Your task to perform on an android device: Open Google Chrome and click the shortcut for Amazon.com Image 0: 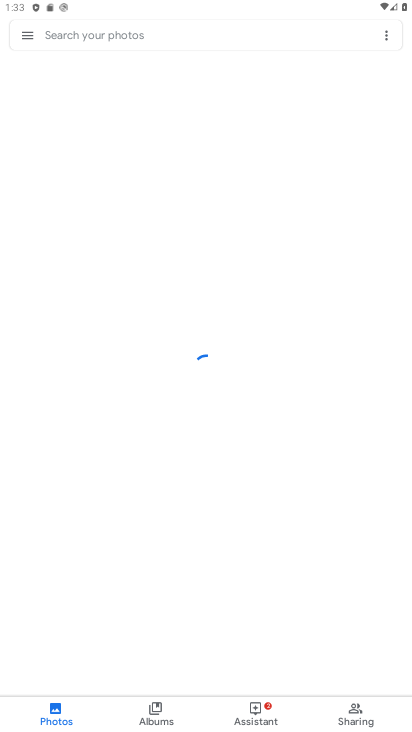
Step 0: press home button
Your task to perform on an android device: Open Google Chrome and click the shortcut for Amazon.com Image 1: 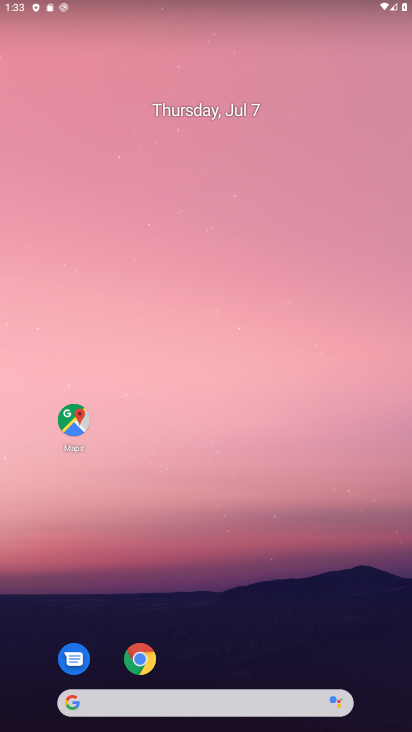
Step 1: click (142, 660)
Your task to perform on an android device: Open Google Chrome and click the shortcut for Amazon.com Image 2: 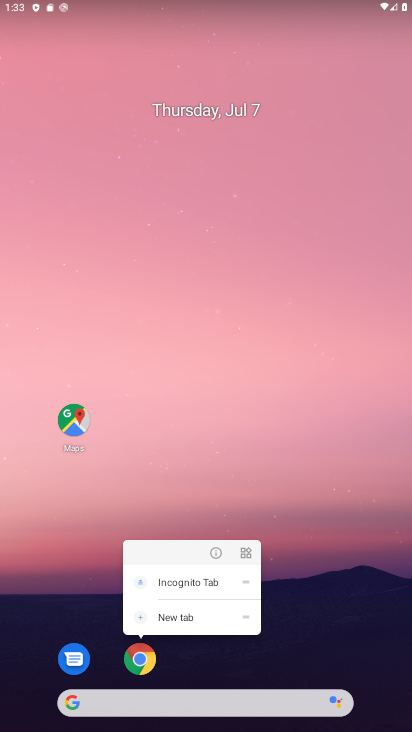
Step 2: click (146, 658)
Your task to perform on an android device: Open Google Chrome and click the shortcut for Amazon.com Image 3: 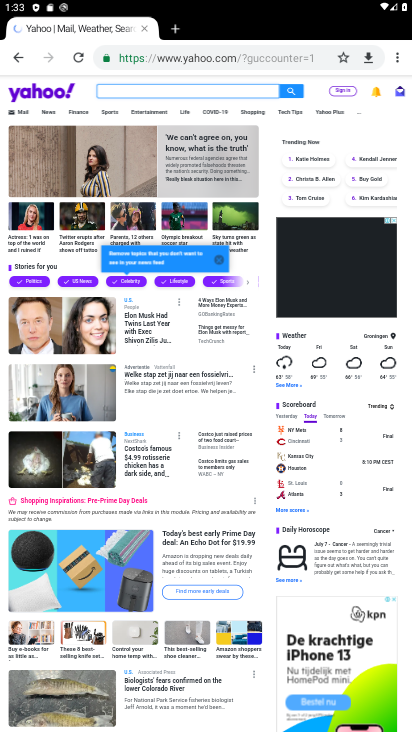
Step 3: click (22, 55)
Your task to perform on an android device: Open Google Chrome and click the shortcut for Amazon.com Image 4: 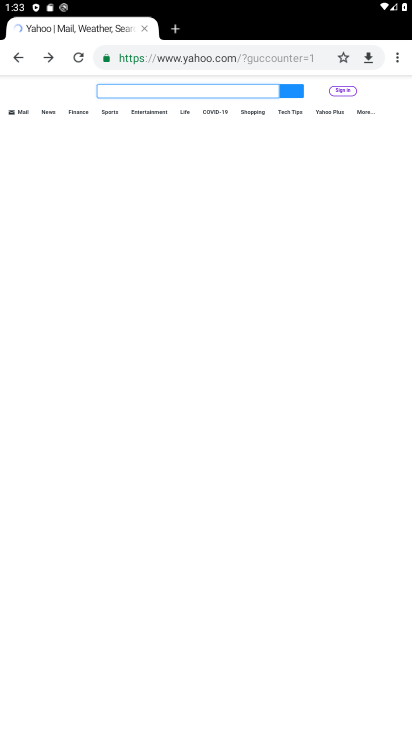
Step 4: click (17, 57)
Your task to perform on an android device: Open Google Chrome and click the shortcut for Amazon.com Image 5: 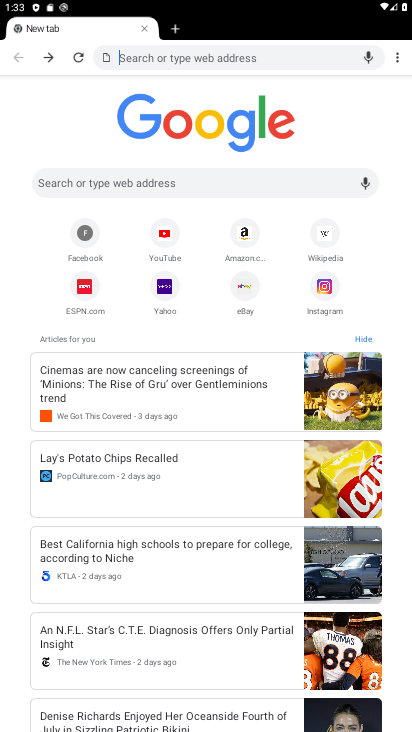
Step 5: click (241, 235)
Your task to perform on an android device: Open Google Chrome and click the shortcut for Amazon.com Image 6: 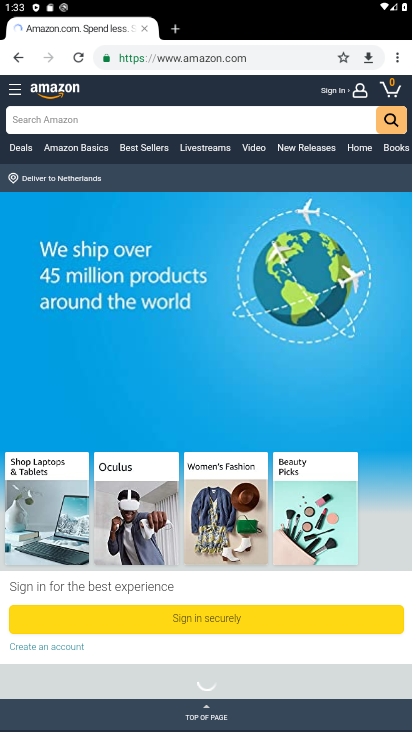
Step 6: task complete